Your task to perform on an android device: change notification settings in the gmail app Image 0: 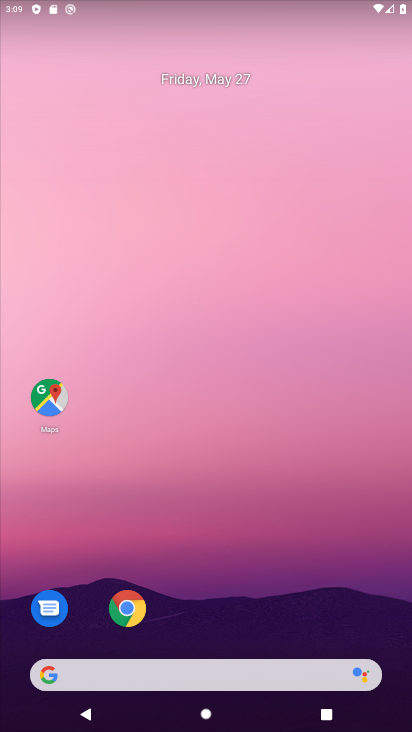
Step 0: drag from (201, 609) to (214, 195)
Your task to perform on an android device: change notification settings in the gmail app Image 1: 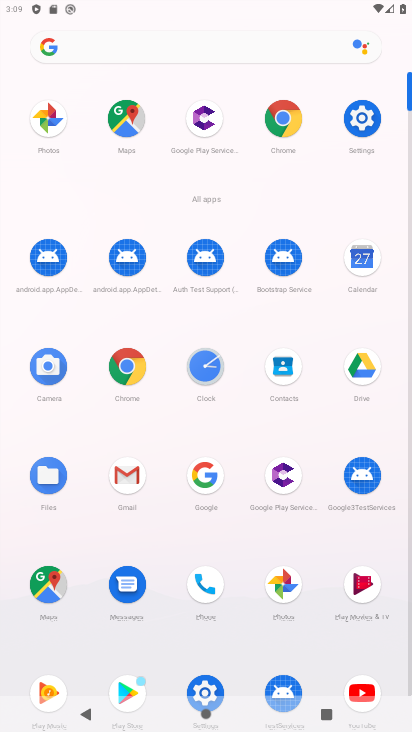
Step 1: click (132, 475)
Your task to perform on an android device: change notification settings in the gmail app Image 2: 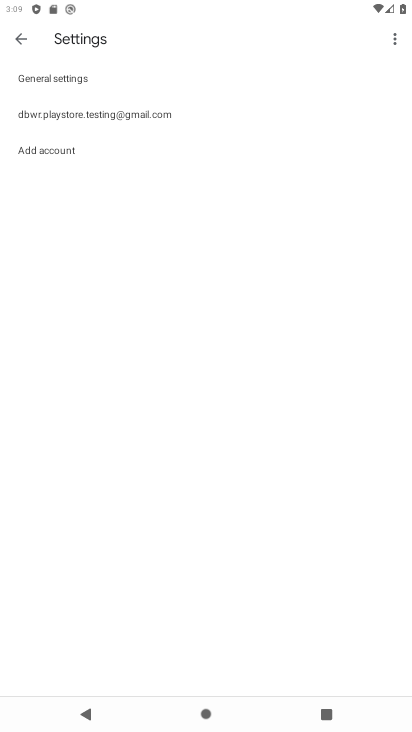
Step 2: click (70, 78)
Your task to perform on an android device: change notification settings in the gmail app Image 3: 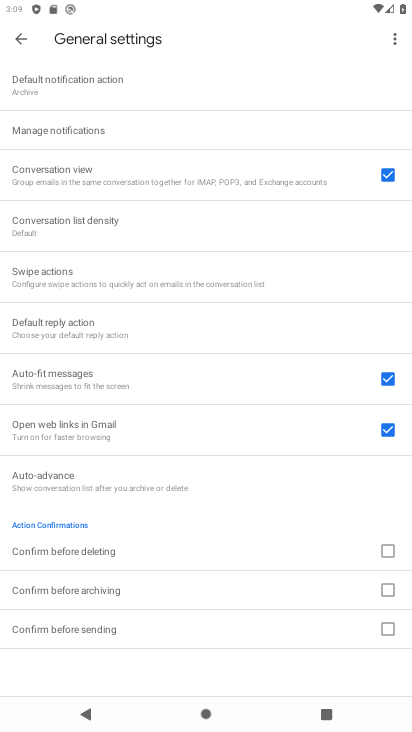
Step 3: click (56, 127)
Your task to perform on an android device: change notification settings in the gmail app Image 4: 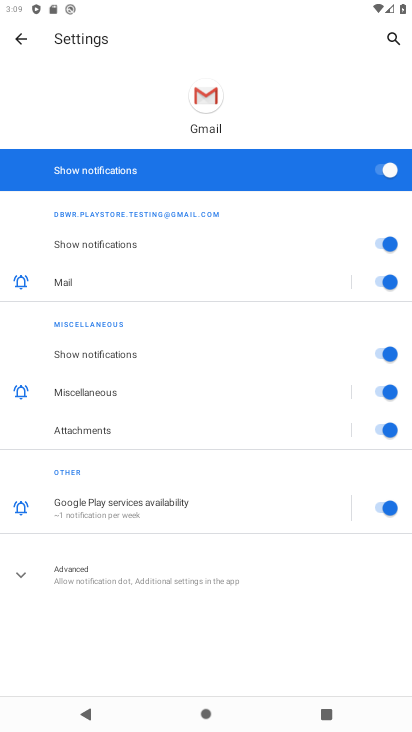
Step 4: click (379, 166)
Your task to perform on an android device: change notification settings in the gmail app Image 5: 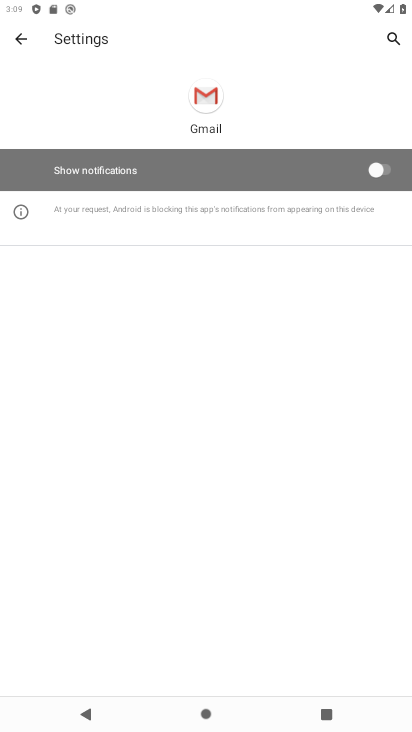
Step 5: task complete